Your task to perform on an android device: Go to display settings Image 0: 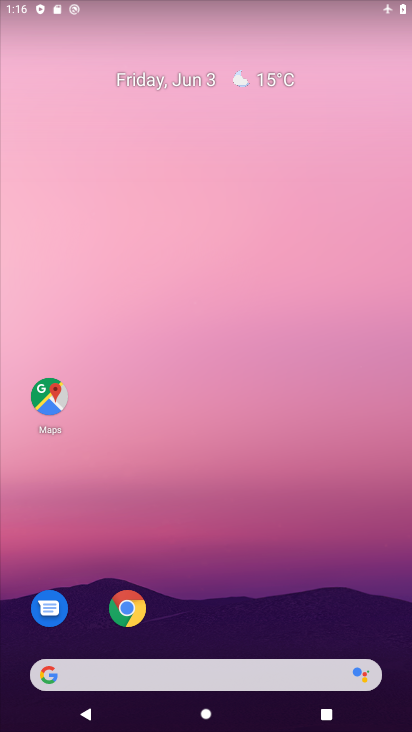
Step 0: drag from (268, 622) to (212, 260)
Your task to perform on an android device: Go to display settings Image 1: 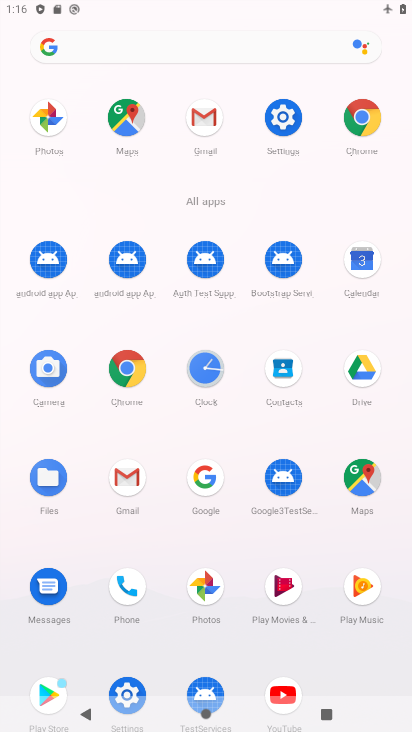
Step 1: click (281, 116)
Your task to perform on an android device: Go to display settings Image 2: 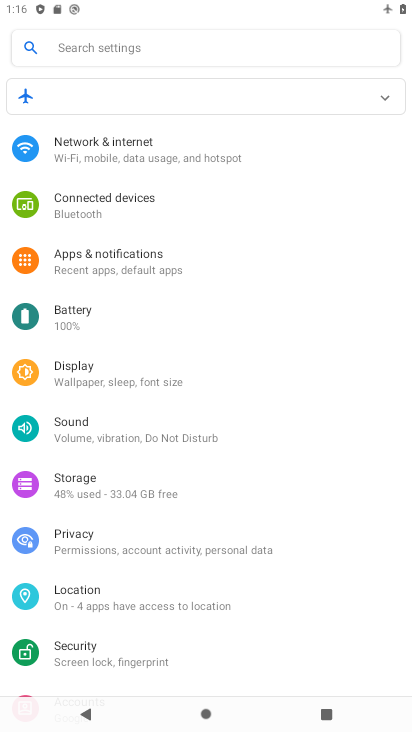
Step 2: click (116, 382)
Your task to perform on an android device: Go to display settings Image 3: 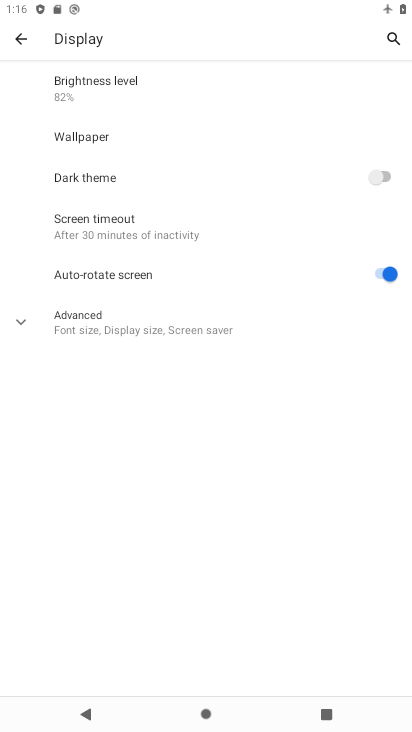
Step 3: task complete